Your task to perform on an android device: Go to ESPN.com Image 0: 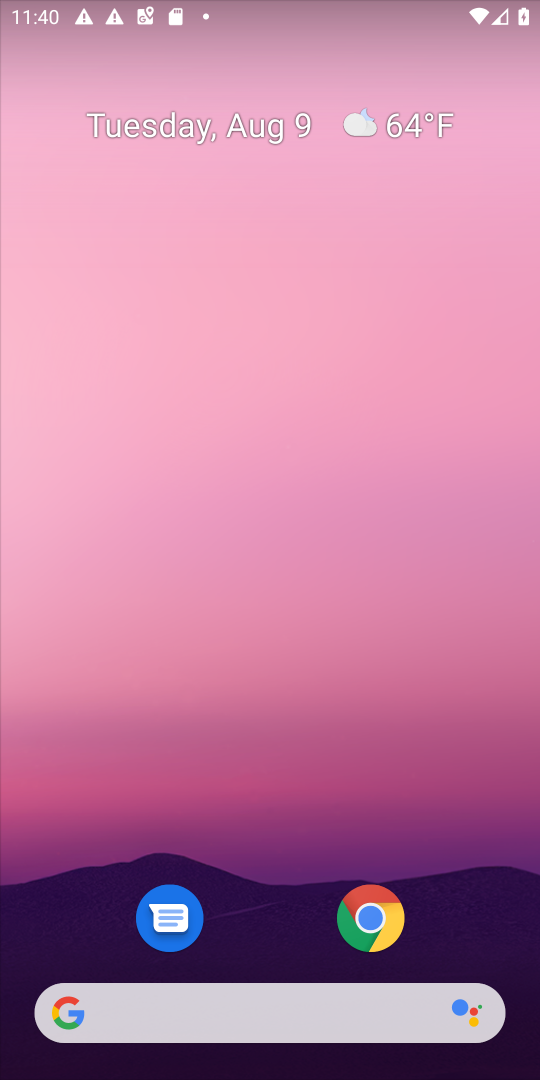
Step 0: drag from (231, 943) to (278, 222)
Your task to perform on an android device: Go to ESPN.com Image 1: 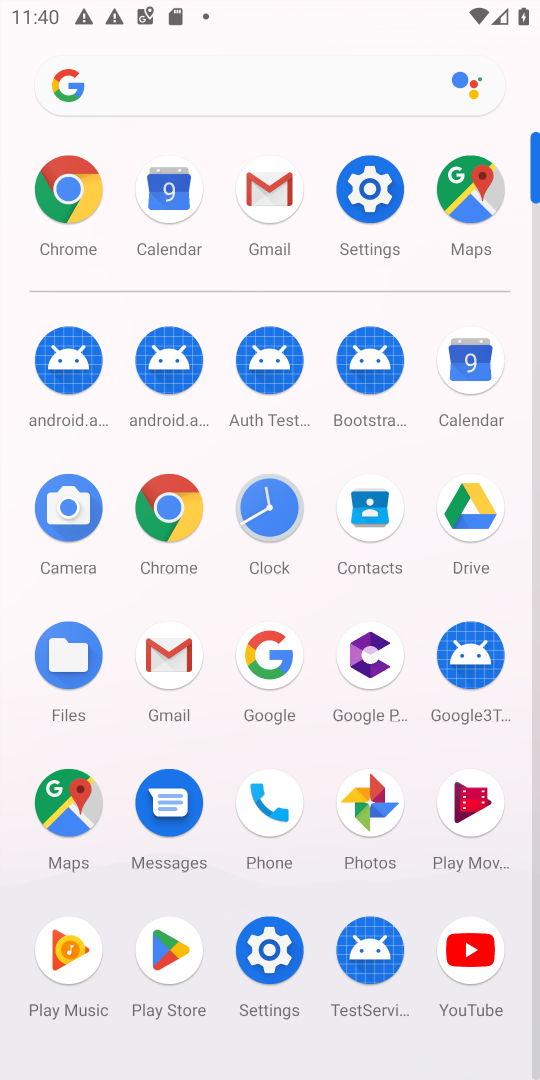
Step 1: click (175, 506)
Your task to perform on an android device: Go to ESPN.com Image 2: 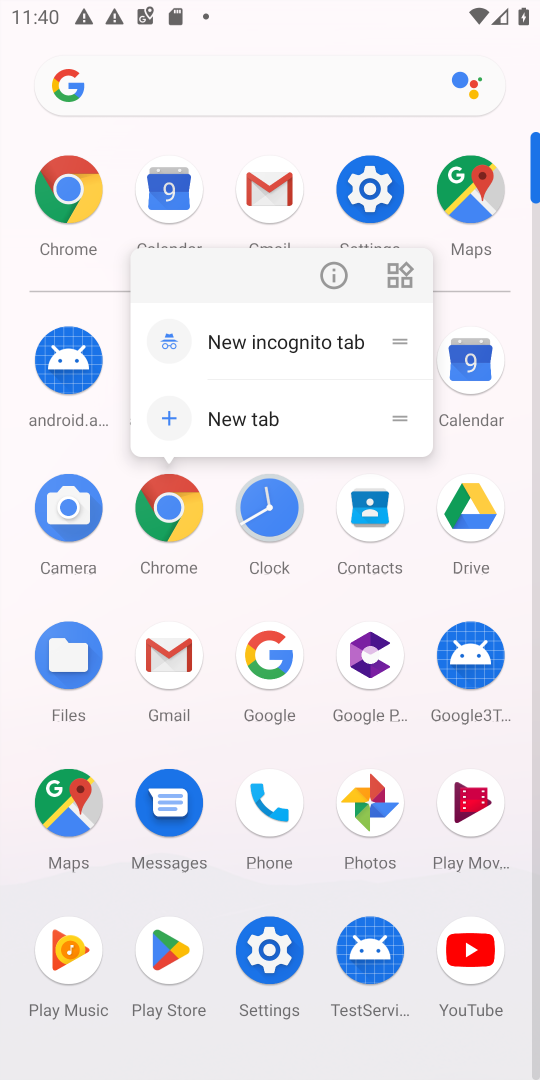
Step 2: click (167, 509)
Your task to perform on an android device: Go to ESPN.com Image 3: 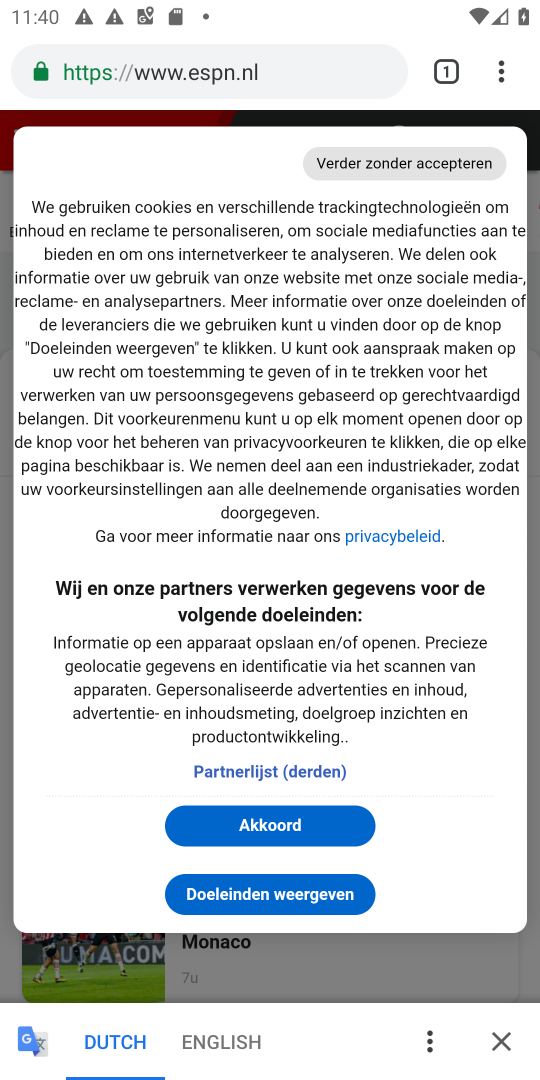
Step 3: task complete